Your task to perform on an android device: Open location settings Image 0: 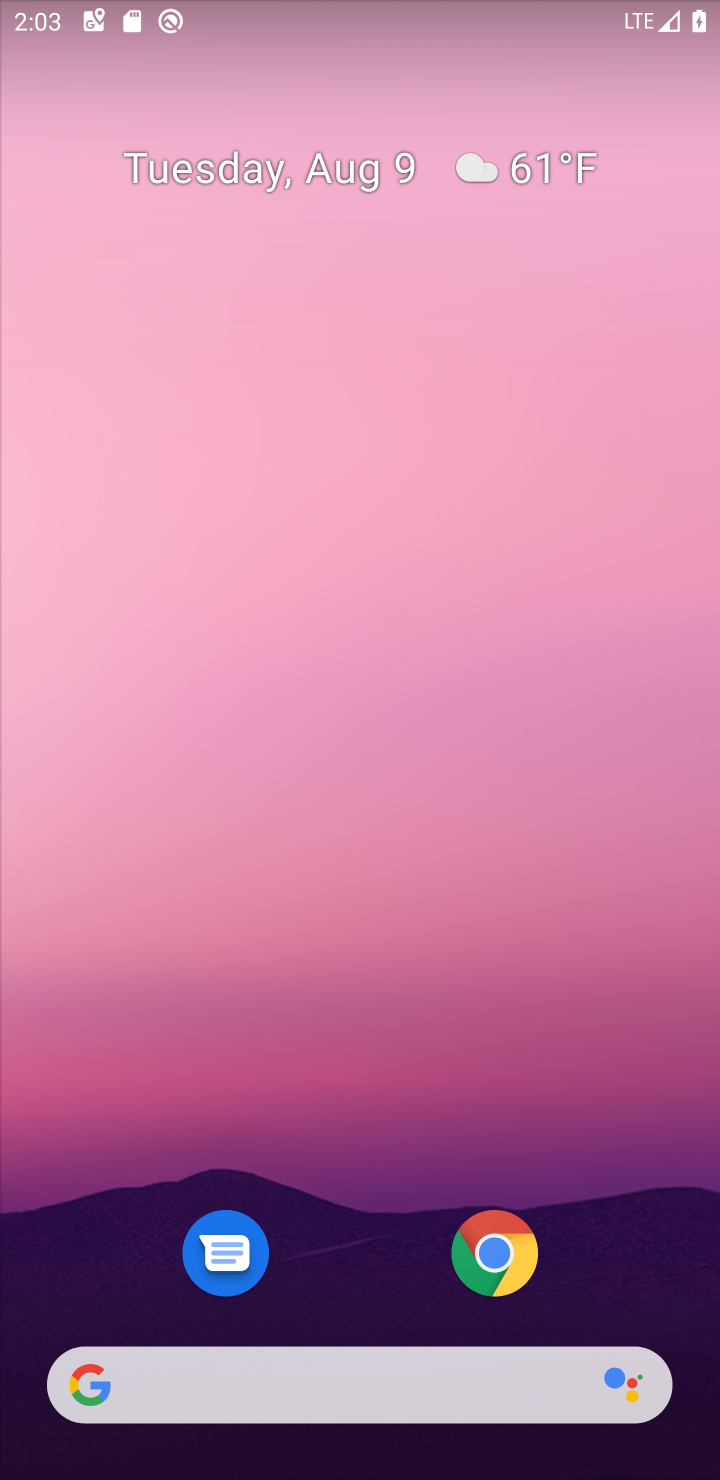
Step 0: drag from (569, 928) to (316, 78)
Your task to perform on an android device: Open location settings Image 1: 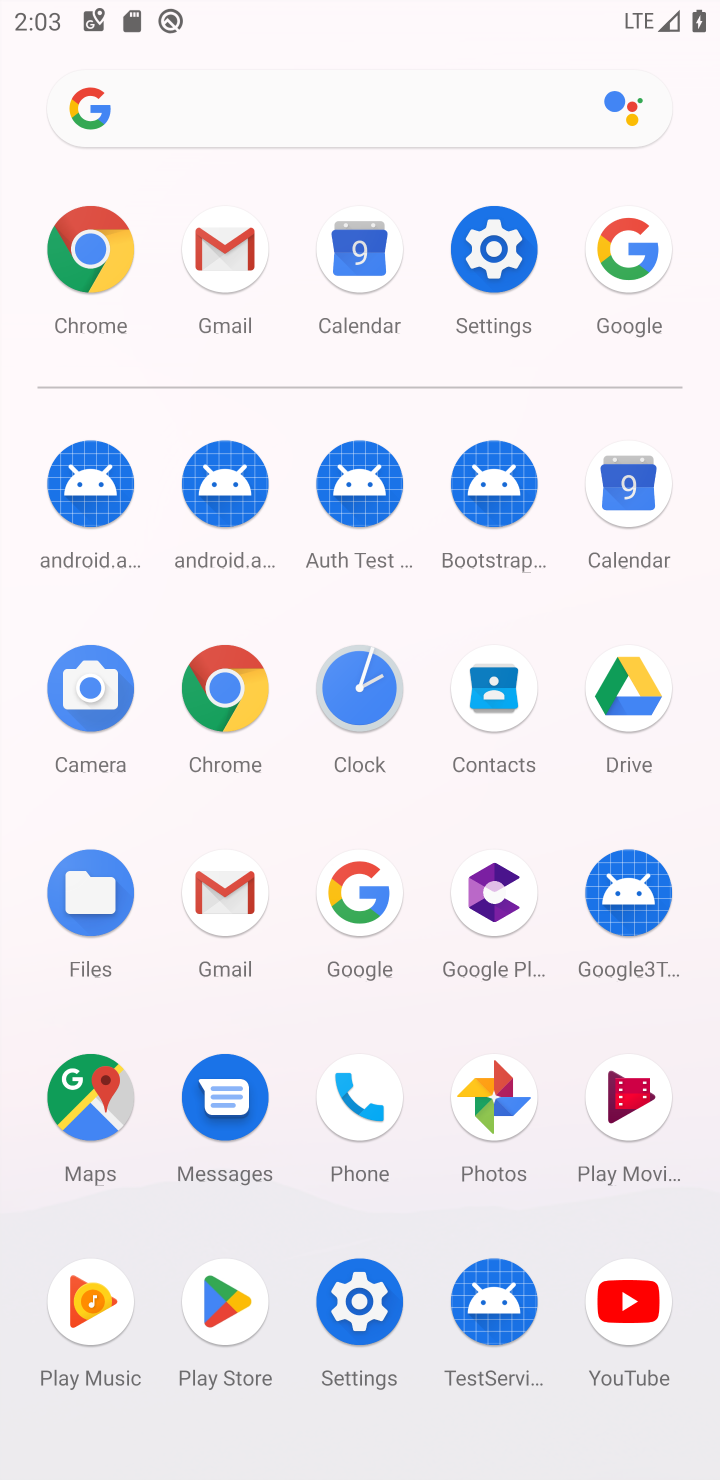
Step 1: click (362, 1285)
Your task to perform on an android device: Open location settings Image 2: 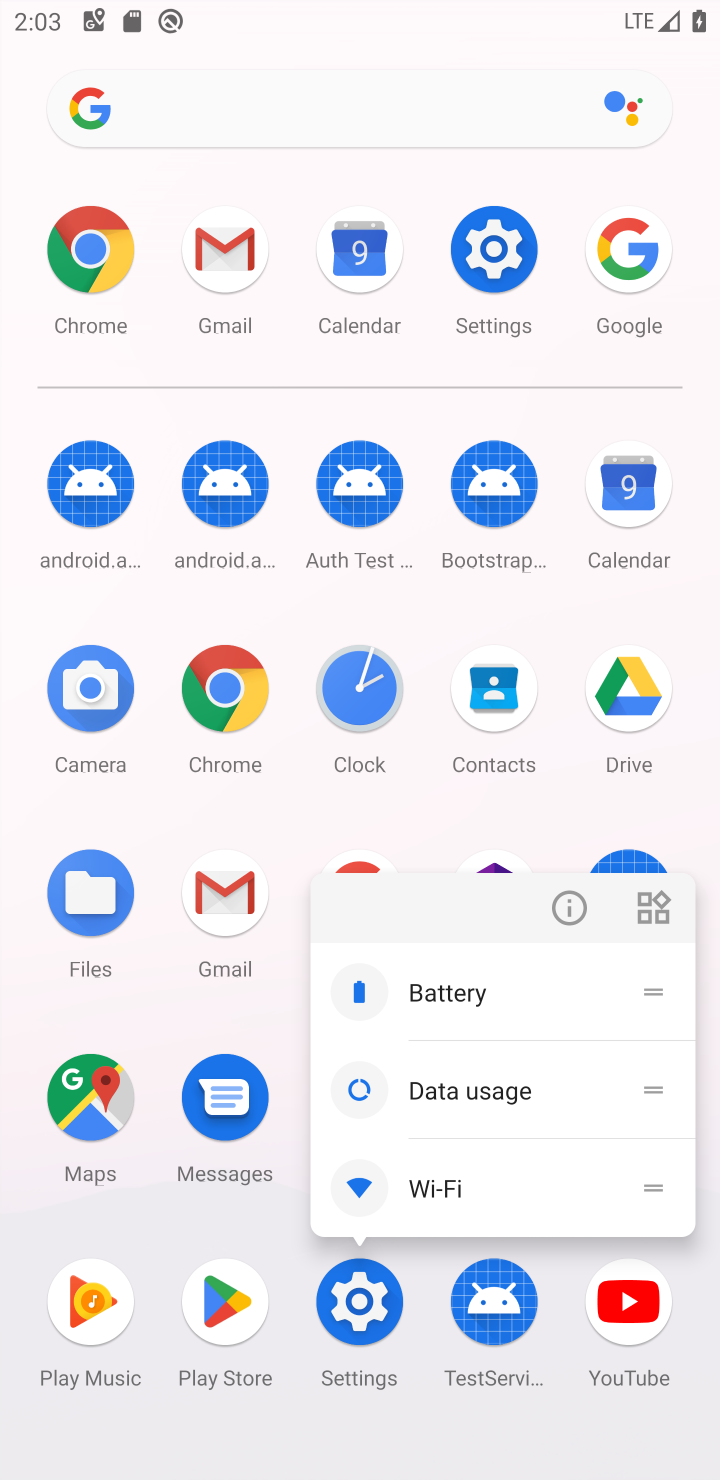
Step 2: click (362, 1285)
Your task to perform on an android device: Open location settings Image 3: 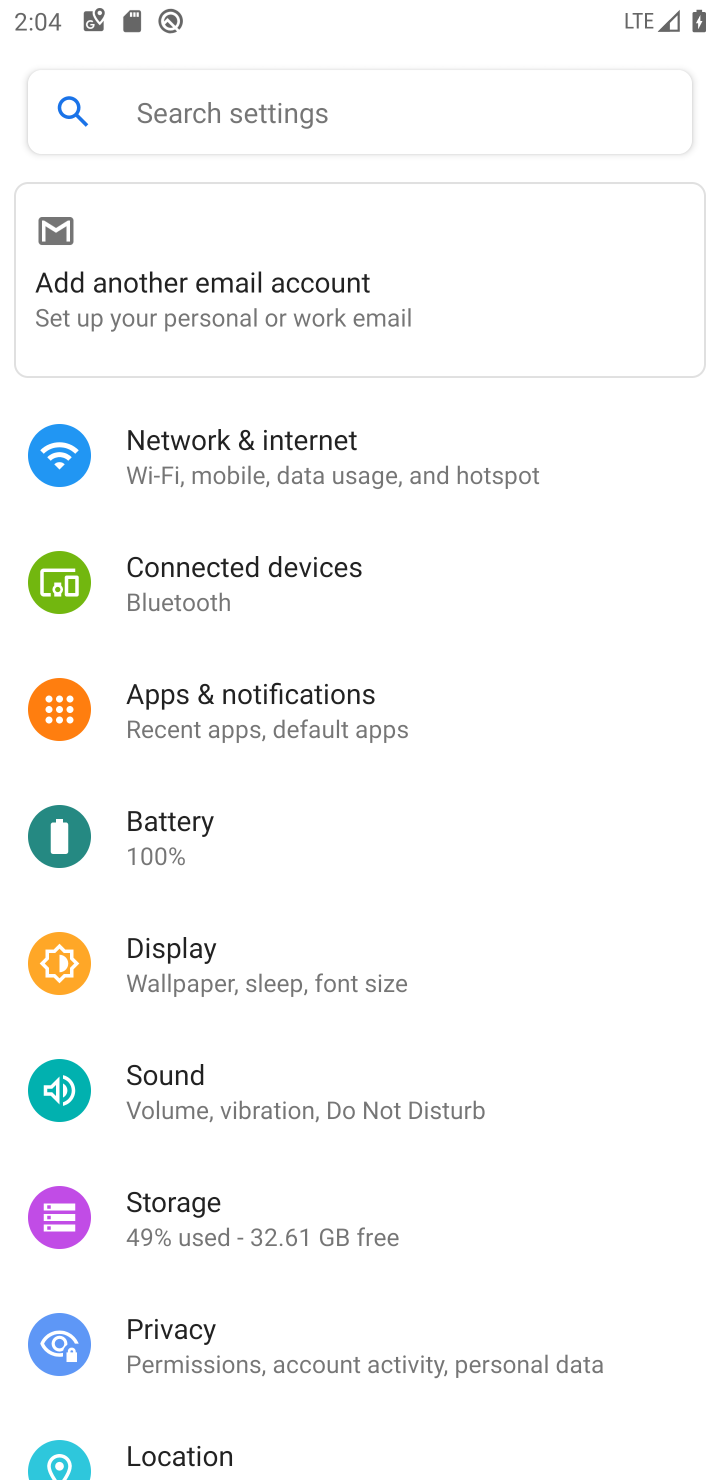
Step 3: click (170, 1450)
Your task to perform on an android device: Open location settings Image 4: 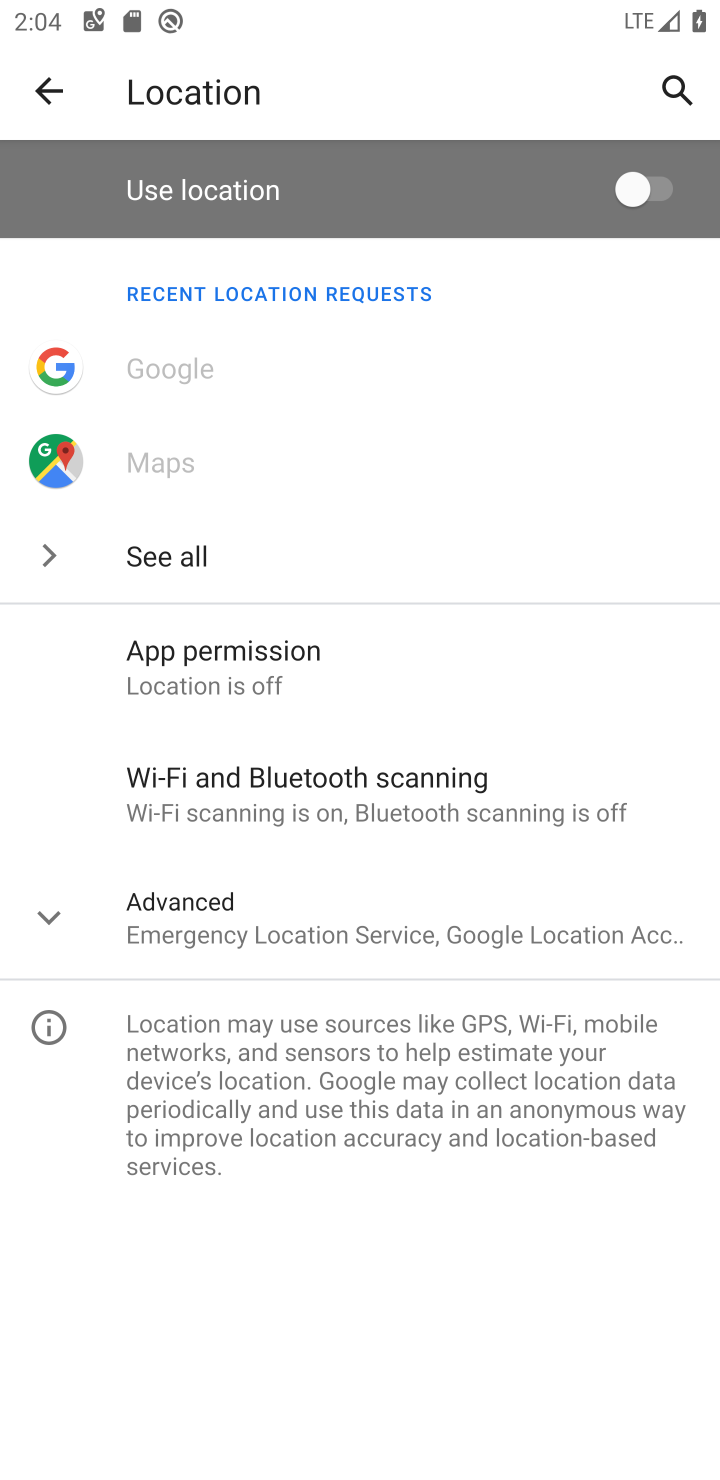
Step 4: task complete